Your task to perform on an android device: Go to CNN.com Image 0: 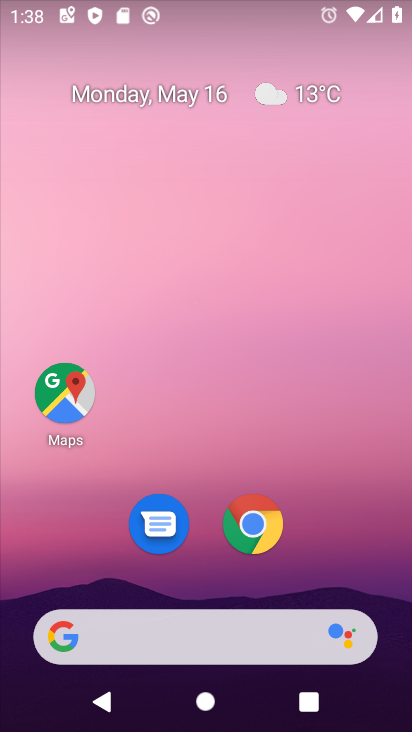
Step 0: click (252, 635)
Your task to perform on an android device: Go to CNN.com Image 1: 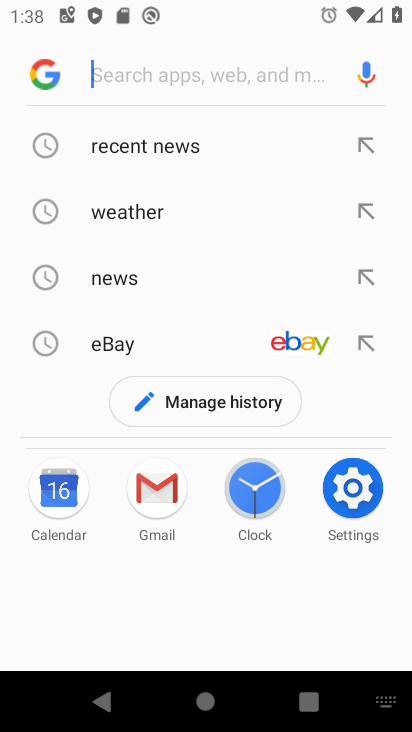
Step 1: type "cnn.com"
Your task to perform on an android device: Go to CNN.com Image 2: 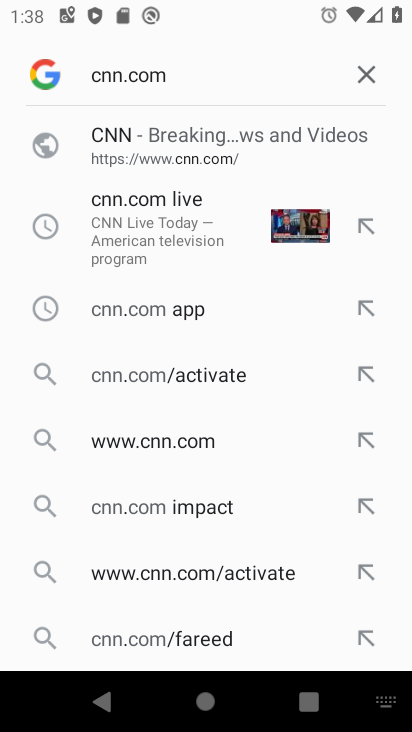
Step 2: click (122, 135)
Your task to perform on an android device: Go to CNN.com Image 3: 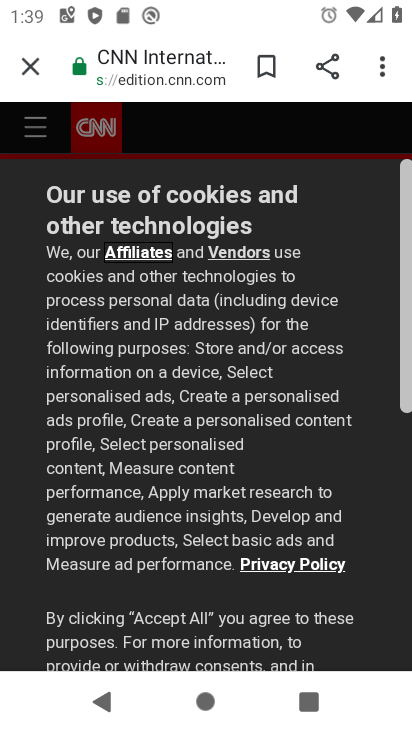
Step 3: task complete